Your task to perform on an android device: Open the calendar app, open the side menu, and click the "Day" option Image 0: 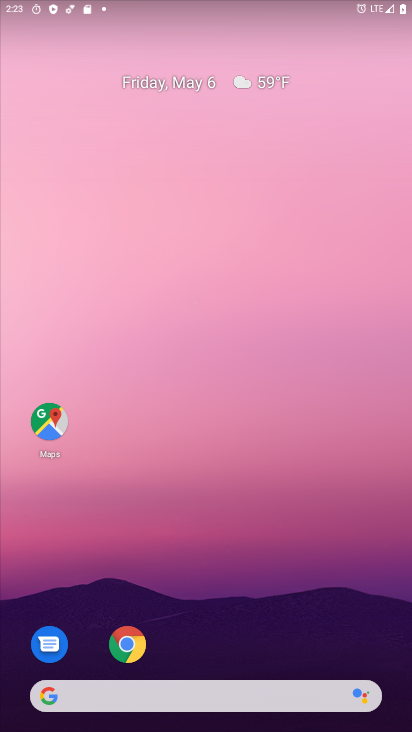
Step 0: drag from (271, 615) to (219, 261)
Your task to perform on an android device: Open the calendar app, open the side menu, and click the "Day" option Image 1: 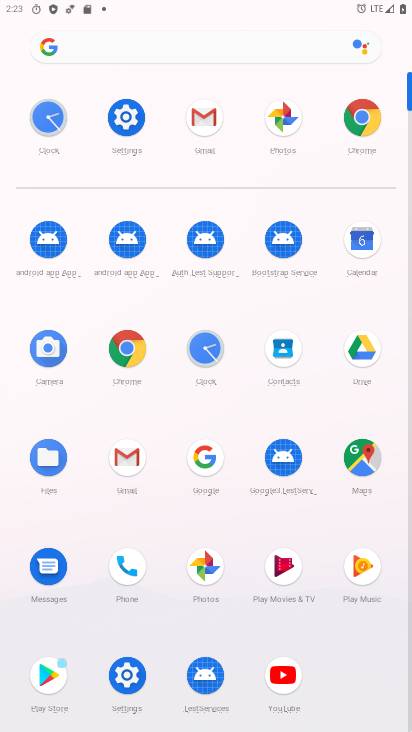
Step 1: click (365, 265)
Your task to perform on an android device: Open the calendar app, open the side menu, and click the "Day" option Image 2: 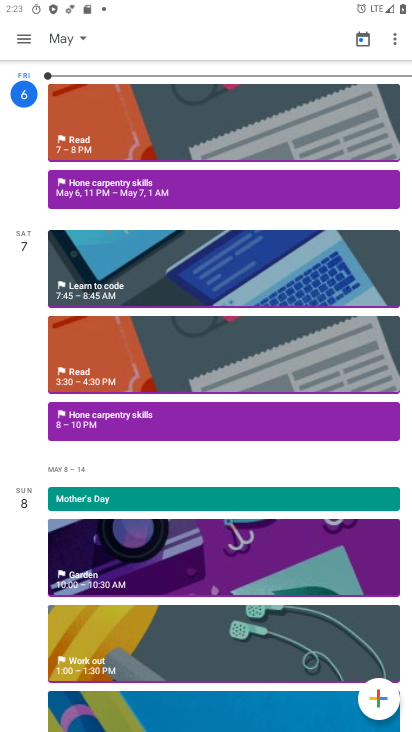
Step 2: click (9, 47)
Your task to perform on an android device: Open the calendar app, open the side menu, and click the "Day" option Image 3: 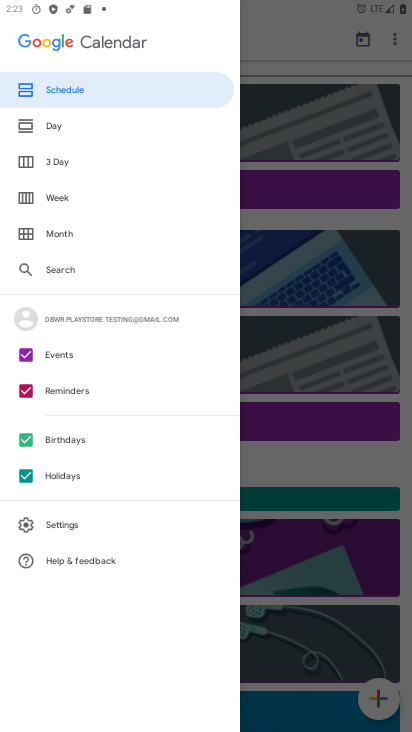
Step 3: click (60, 124)
Your task to perform on an android device: Open the calendar app, open the side menu, and click the "Day" option Image 4: 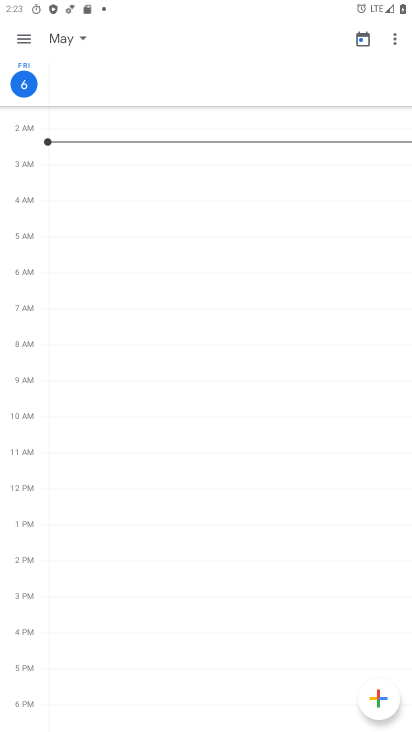
Step 4: task complete